Your task to perform on an android device: turn off wifi Image 0: 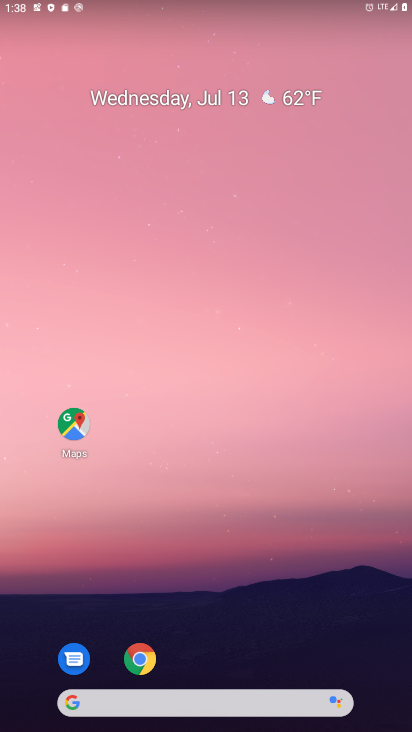
Step 0: drag from (247, 719) to (209, 69)
Your task to perform on an android device: turn off wifi Image 1: 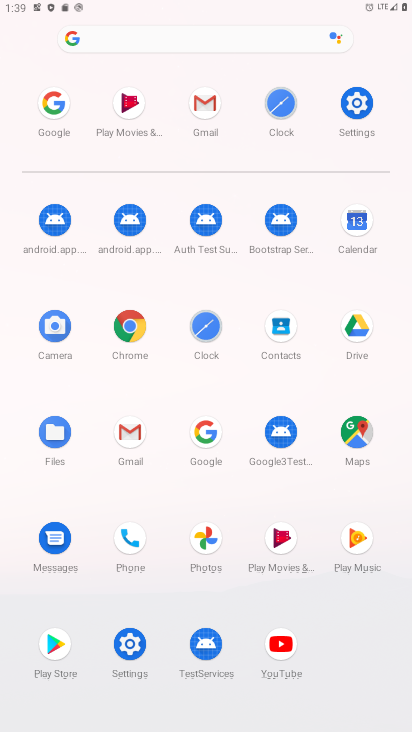
Step 1: click (364, 101)
Your task to perform on an android device: turn off wifi Image 2: 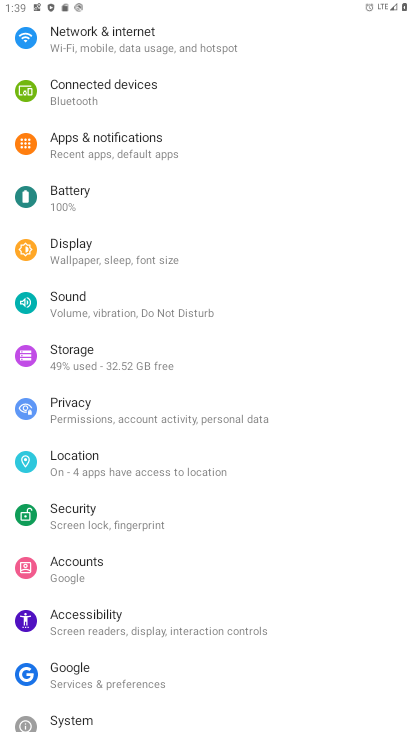
Step 2: click (134, 87)
Your task to perform on an android device: turn off wifi Image 3: 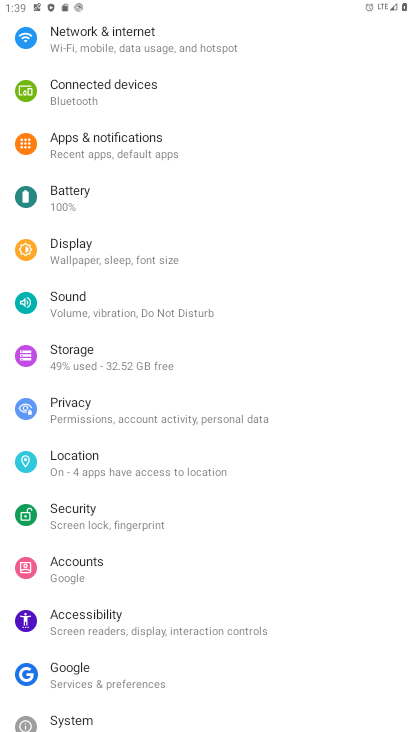
Step 3: click (160, 495)
Your task to perform on an android device: turn off wifi Image 4: 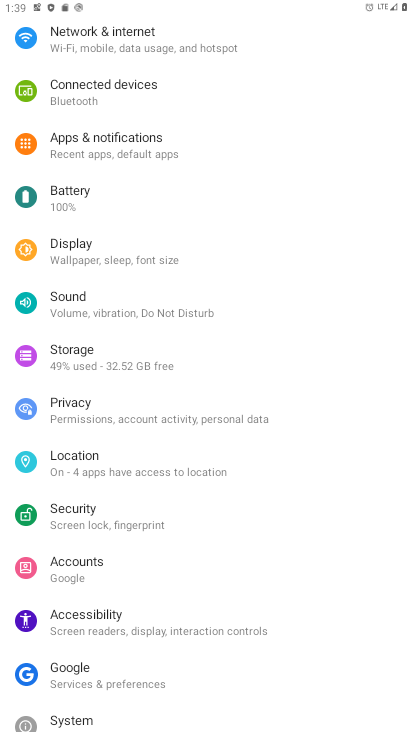
Step 4: click (127, 56)
Your task to perform on an android device: turn off wifi Image 5: 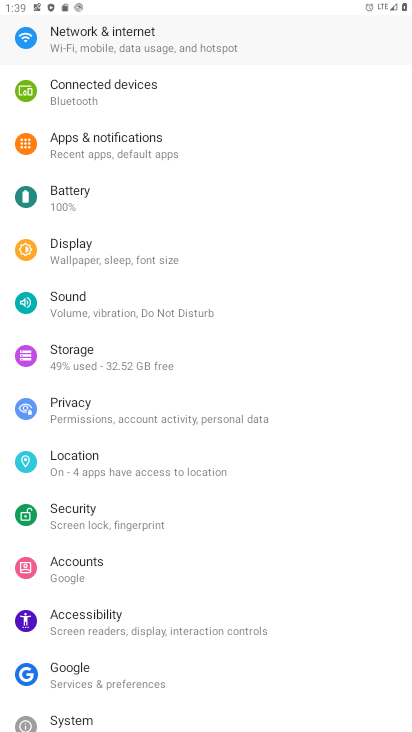
Step 5: click (137, 495)
Your task to perform on an android device: turn off wifi Image 6: 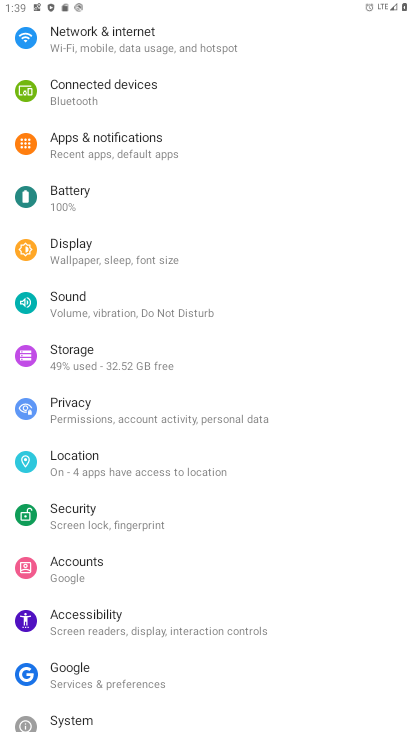
Step 6: drag from (251, 144) to (251, 209)
Your task to perform on an android device: turn off wifi Image 7: 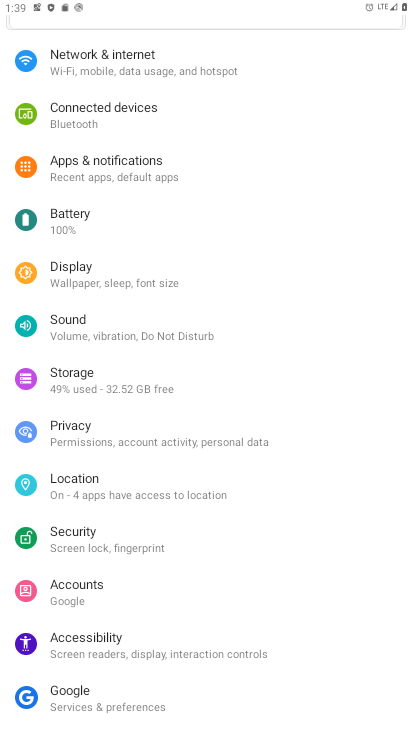
Step 7: click (251, 537)
Your task to perform on an android device: turn off wifi Image 8: 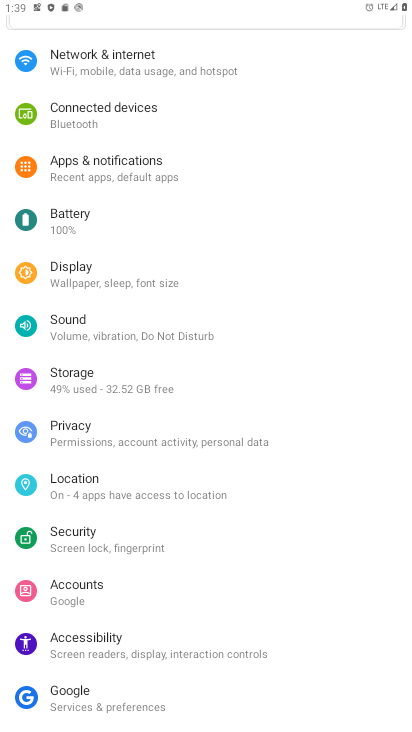
Step 8: click (109, 70)
Your task to perform on an android device: turn off wifi Image 9: 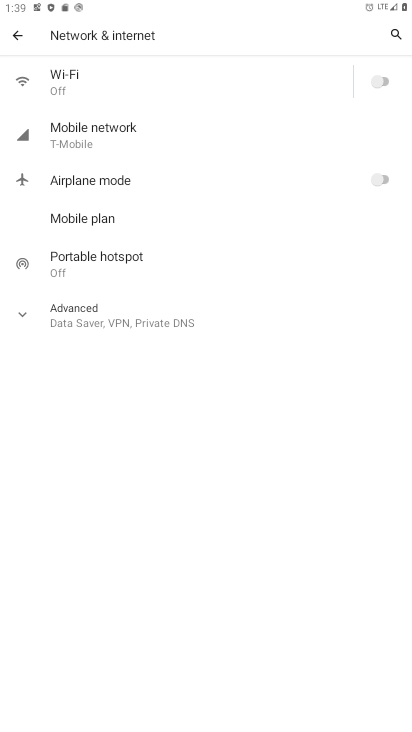
Step 9: task complete